Your task to perform on an android device: change timer sound Image 0: 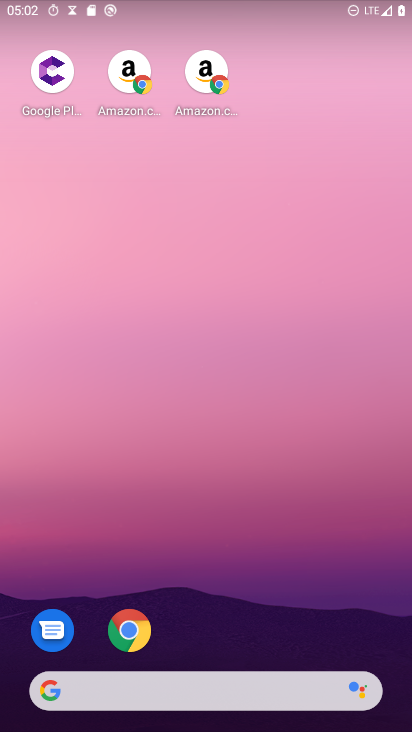
Step 0: drag from (224, 625) to (199, 65)
Your task to perform on an android device: change timer sound Image 1: 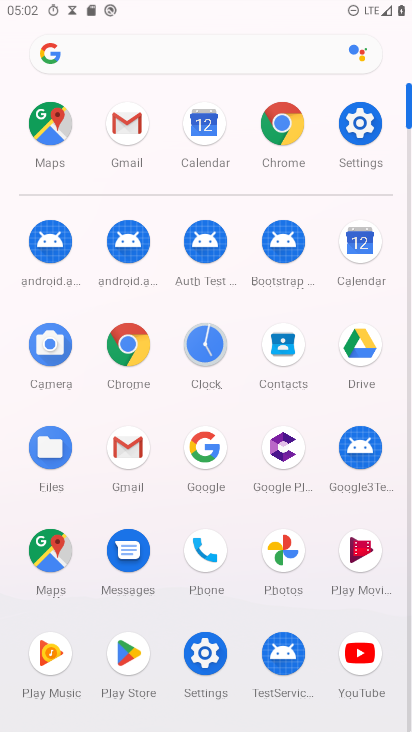
Step 1: click (362, 126)
Your task to perform on an android device: change timer sound Image 2: 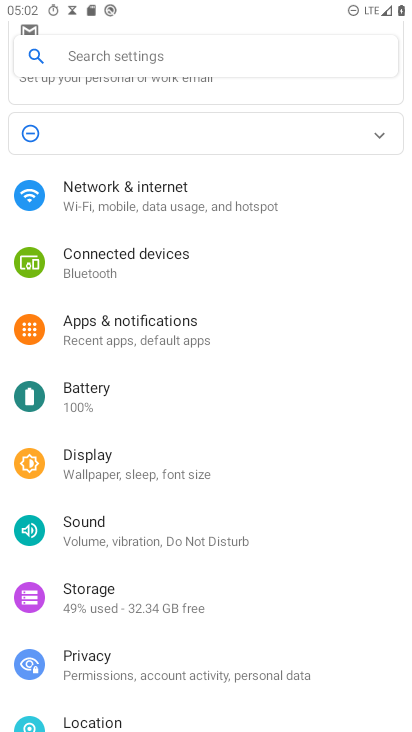
Step 2: press home button
Your task to perform on an android device: change timer sound Image 3: 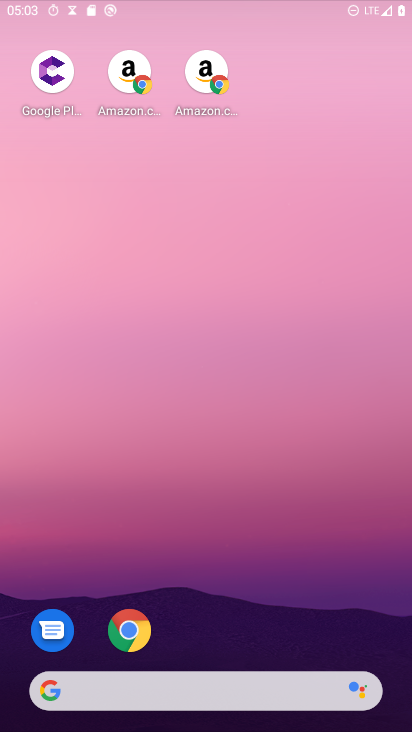
Step 3: drag from (220, 704) to (321, 109)
Your task to perform on an android device: change timer sound Image 4: 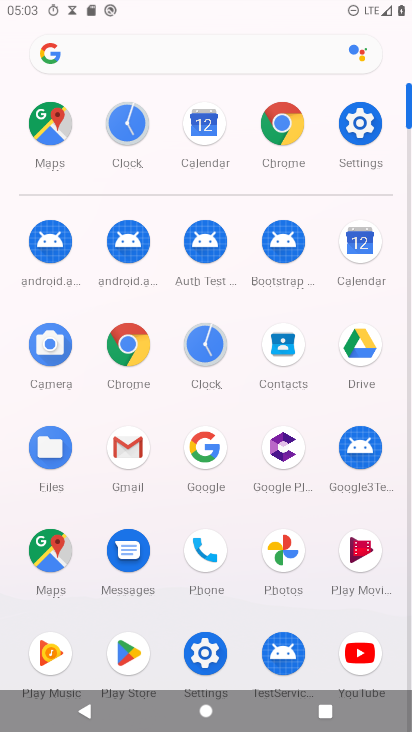
Step 4: click (214, 353)
Your task to perform on an android device: change timer sound Image 5: 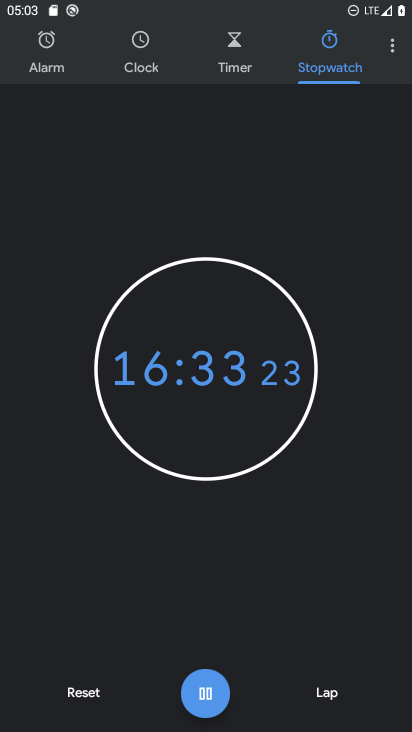
Step 5: drag from (392, 52) to (356, 206)
Your task to perform on an android device: change timer sound Image 6: 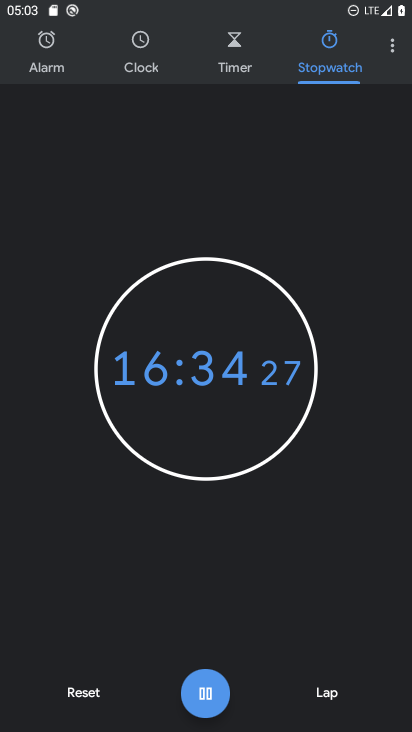
Step 6: drag from (356, 215) to (346, 269)
Your task to perform on an android device: change timer sound Image 7: 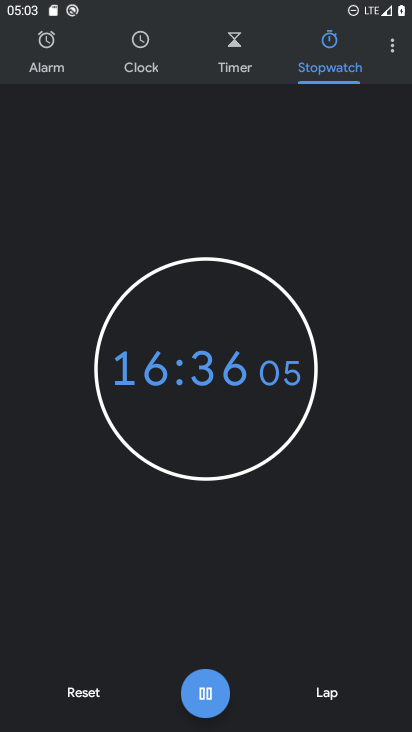
Step 7: click (393, 48)
Your task to perform on an android device: change timer sound Image 8: 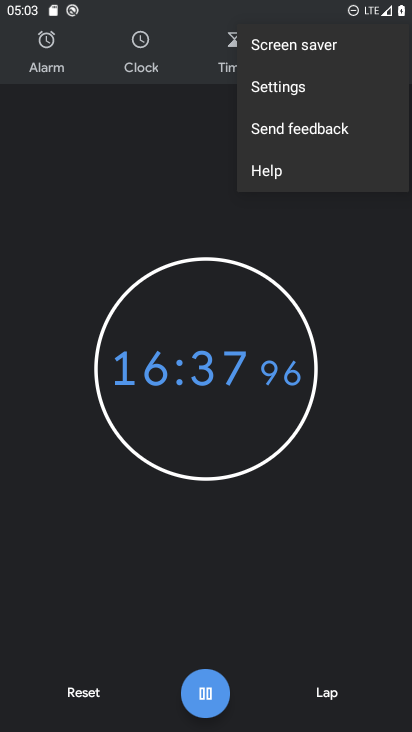
Step 8: click (275, 71)
Your task to perform on an android device: change timer sound Image 9: 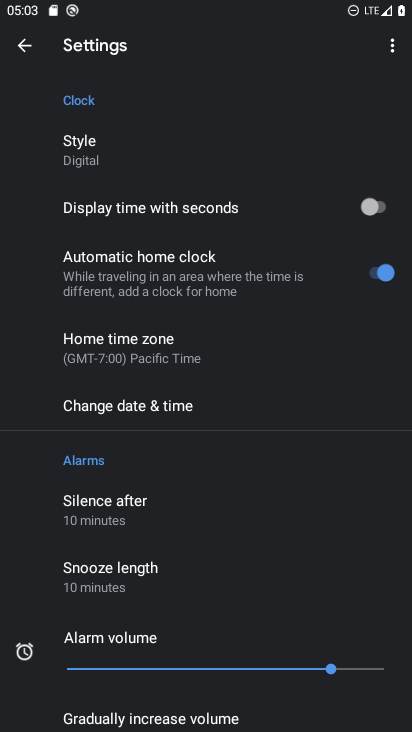
Step 9: drag from (165, 649) to (220, 55)
Your task to perform on an android device: change timer sound Image 10: 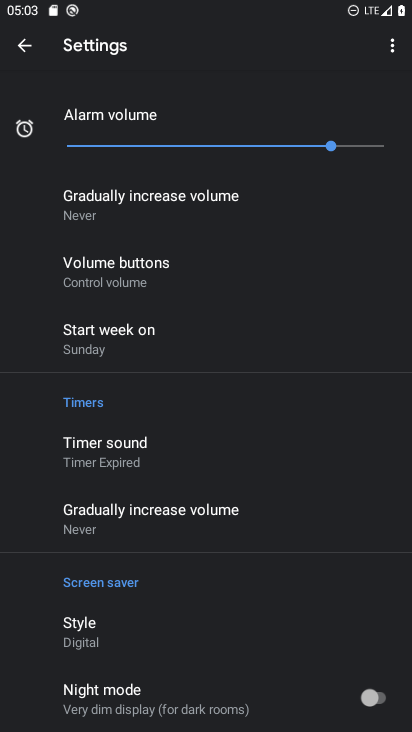
Step 10: click (138, 447)
Your task to perform on an android device: change timer sound Image 11: 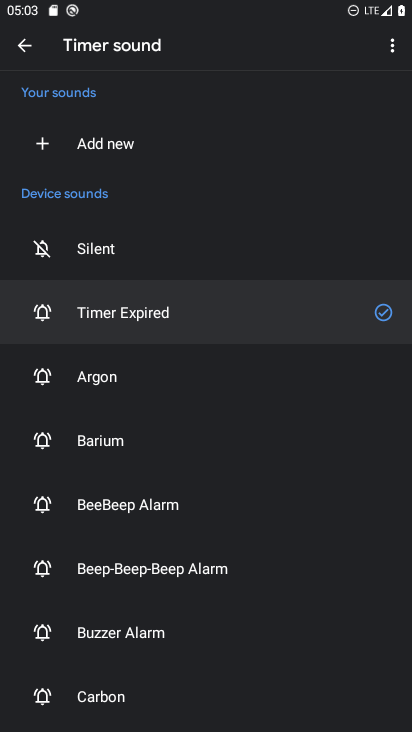
Step 11: click (119, 376)
Your task to perform on an android device: change timer sound Image 12: 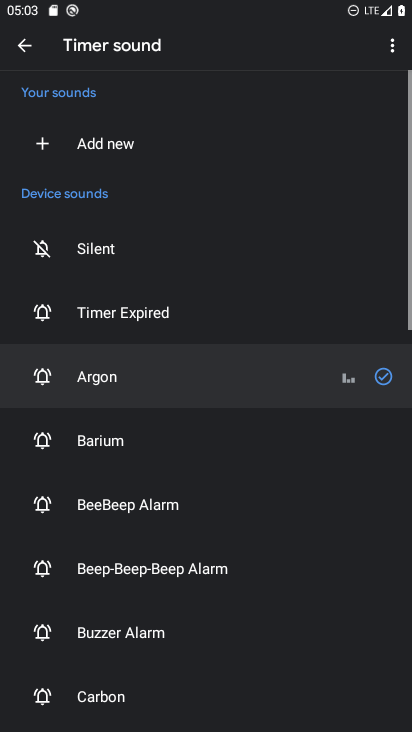
Step 12: task complete